Your task to perform on an android device: turn off location Image 0: 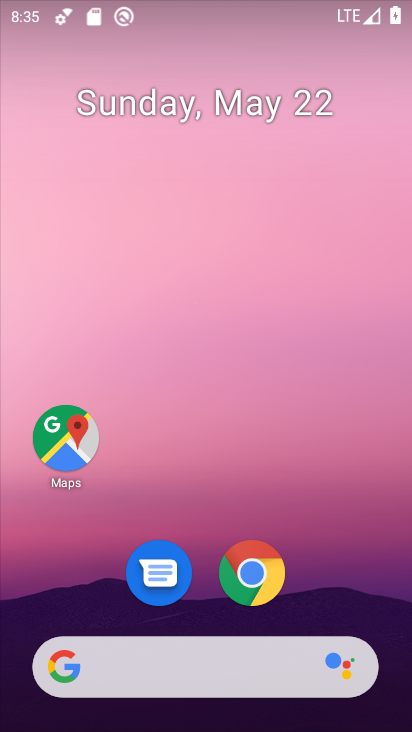
Step 0: click (344, 30)
Your task to perform on an android device: turn off location Image 1: 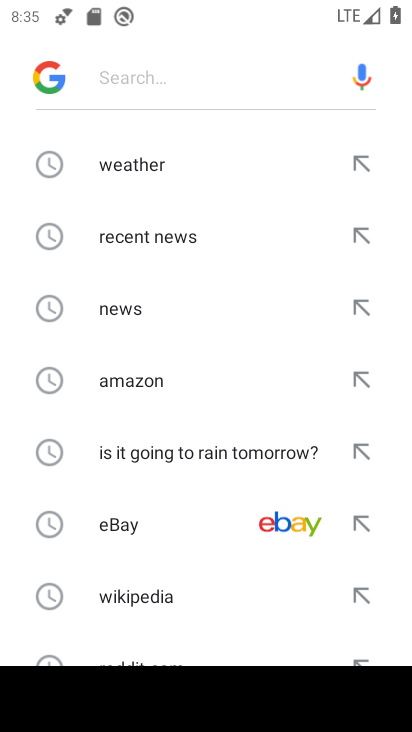
Step 1: press home button
Your task to perform on an android device: turn off location Image 2: 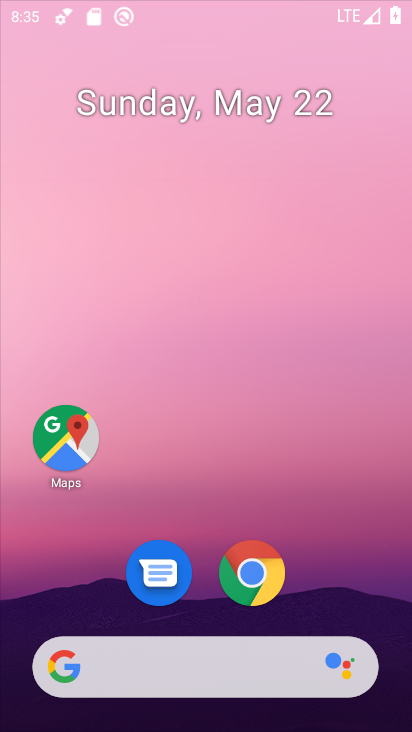
Step 2: drag from (177, 618) to (255, 108)
Your task to perform on an android device: turn off location Image 3: 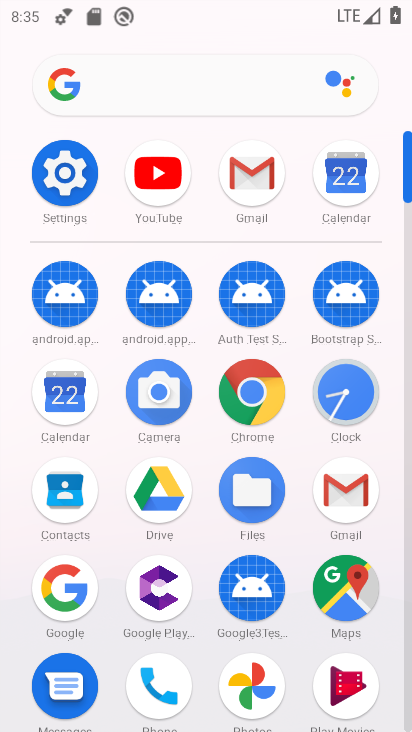
Step 3: click (41, 185)
Your task to perform on an android device: turn off location Image 4: 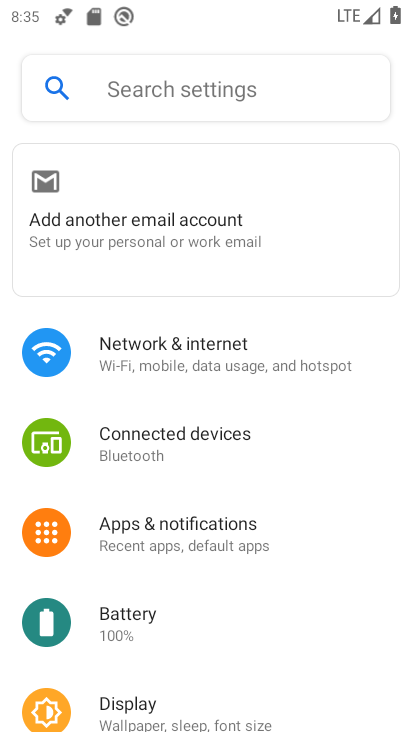
Step 4: drag from (191, 597) to (287, 191)
Your task to perform on an android device: turn off location Image 5: 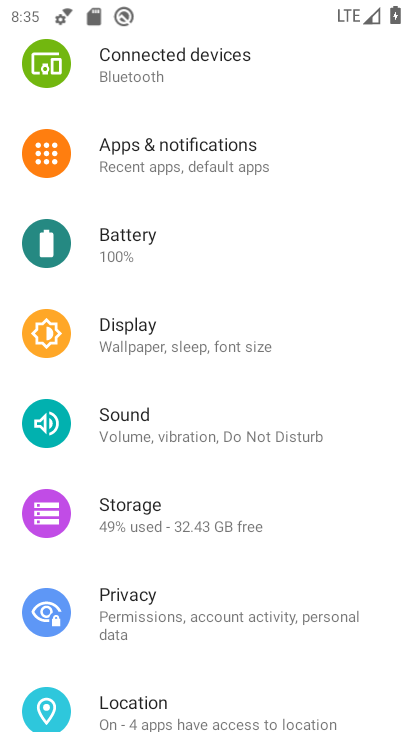
Step 5: drag from (178, 627) to (306, 179)
Your task to perform on an android device: turn off location Image 6: 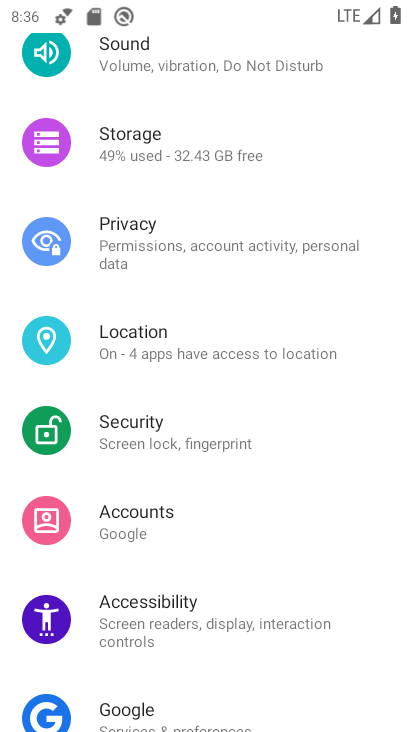
Step 6: click (192, 329)
Your task to perform on an android device: turn off location Image 7: 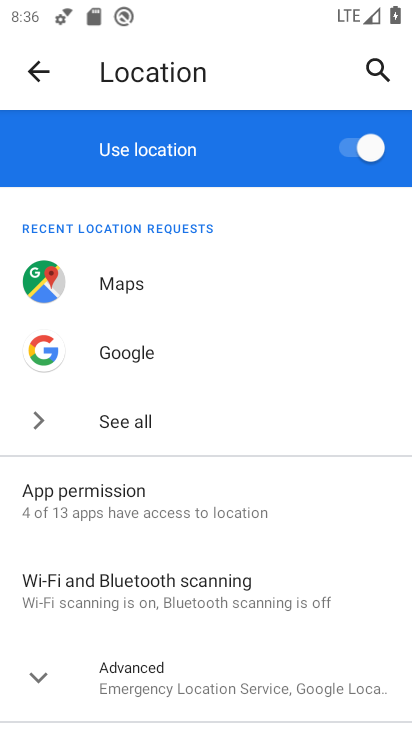
Step 7: drag from (146, 597) to (273, 99)
Your task to perform on an android device: turn off location Image 8: 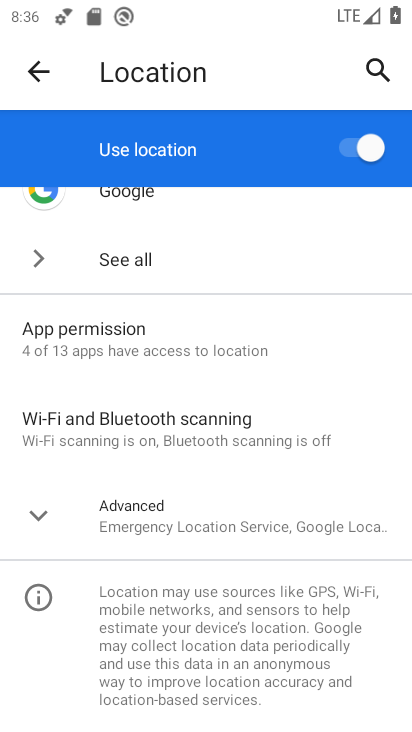
Step 8: click (361, 132)
Your task to perform on an android device: turn off location Image 9: 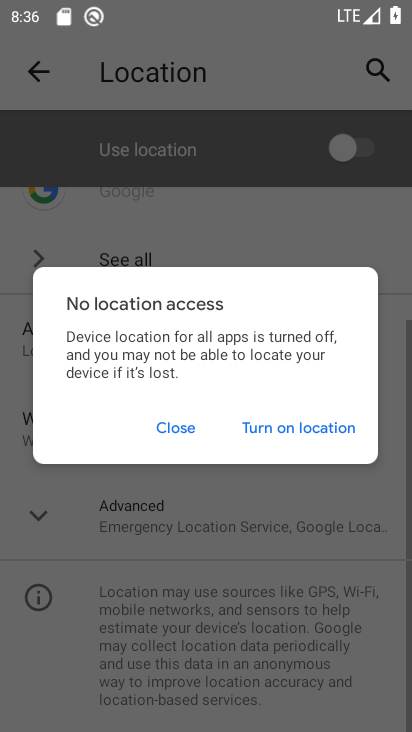
Step 9: task complete